Your task to perform on an android device: turn on wifi Image 0: 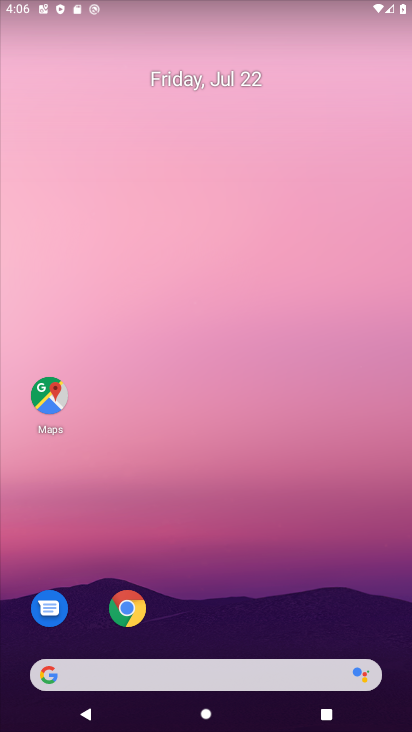
Step 0: drag from (244, 709) to (244, 218)
Your task to perform on an android device: turn on wifi Image 1: 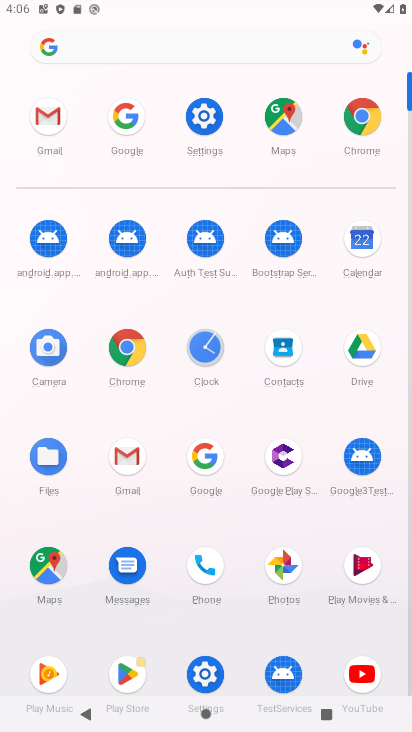
Step 1: click (207, 117)
Your task to perform on an android device: turn on wifi Image 2: 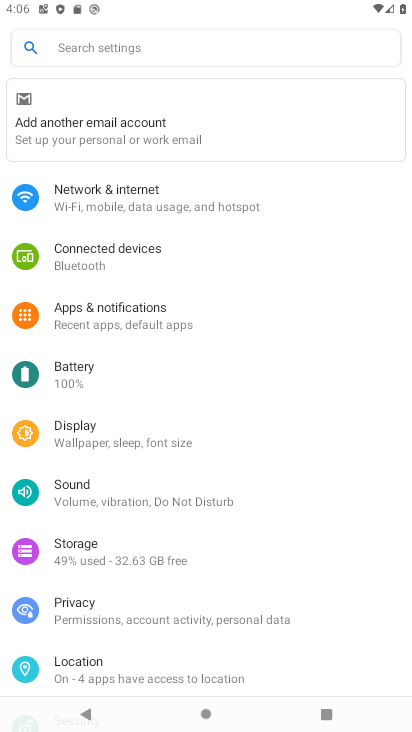
Step 2: click (106, 196)
Your task to perform on an android device: turn on wifi Image 3: 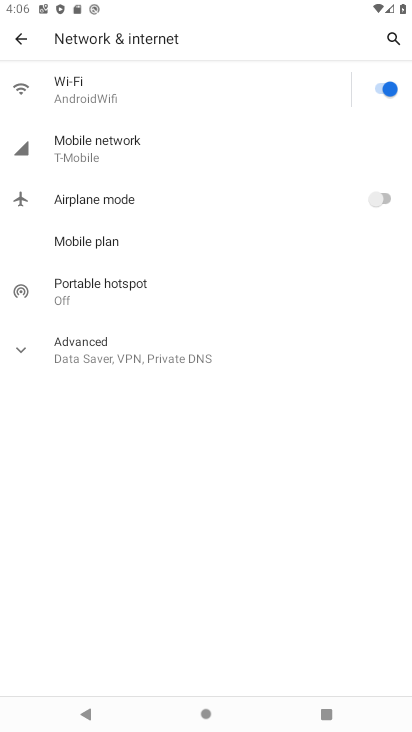
Step 3: task complete